Your task to perform on an android device: change notifications settings Image 0: 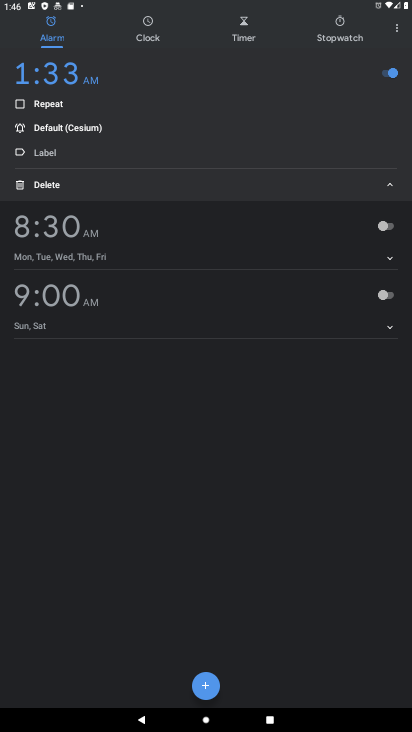
Step 0: press home button
Your task to perform on an android device: change notifications settings Image 1: 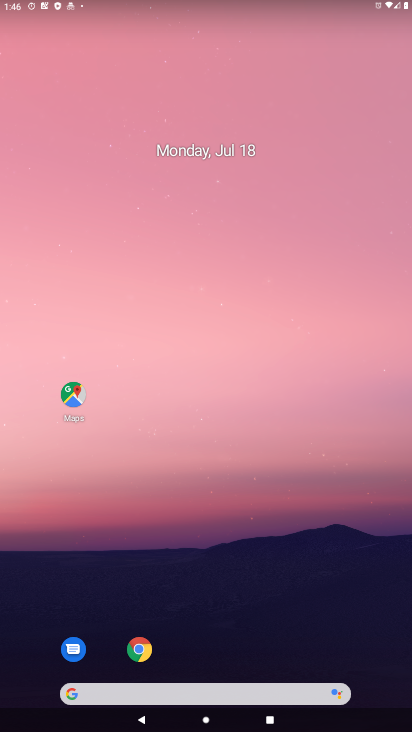
Step 1: drag from (192, 654) to (189, 50)
Your task to perform on an android device: change notifications settings Image 2: 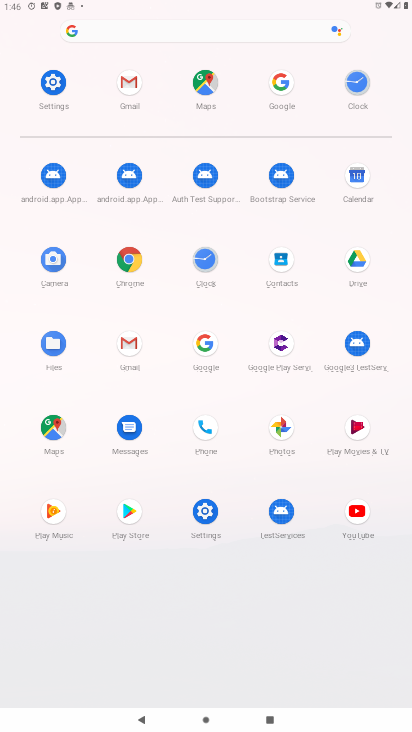
Step 2: click (57, 84)
Your task to perform on an android device: change notifications settings Image 3: 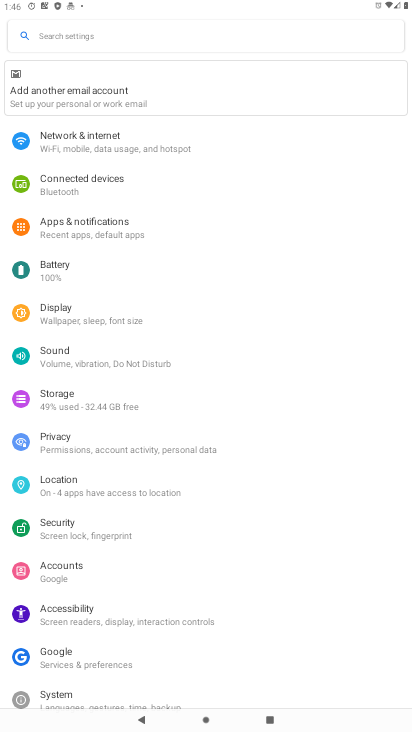
Step 3: click (80, 229)
Your task to perform on an android device: change notifications settings Image 4: 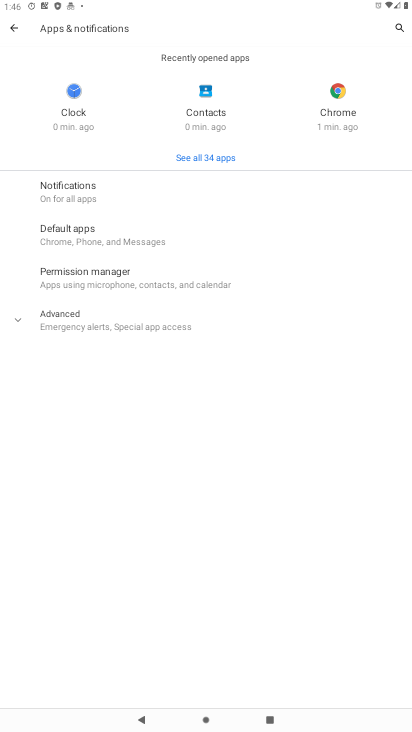
Step 4: click (63, 183)
Your task to perform on an android device: change notifications settings Image 5: 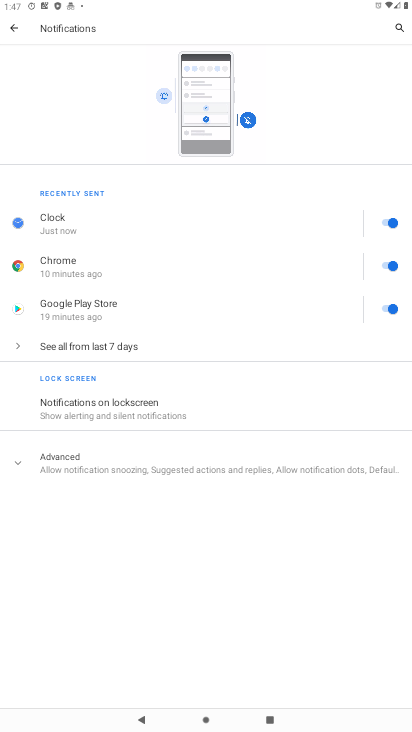
Step 5: click (75, 346)
Your task to perform on an android device: change notifications settings Image 6: 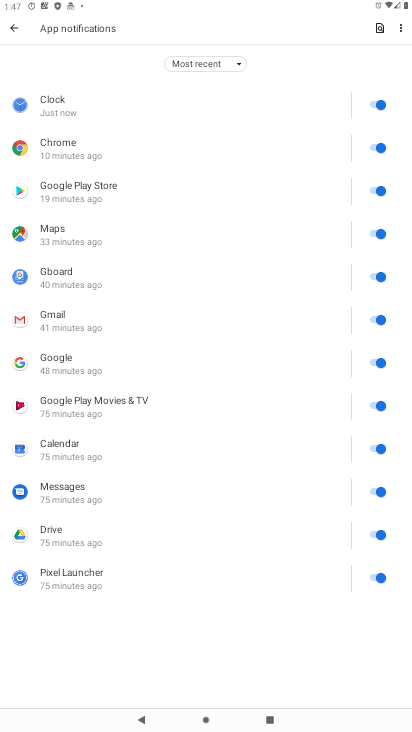
Step 6: click (224, 60)
Your task to perform on an android device: change notifications settings Image 7: 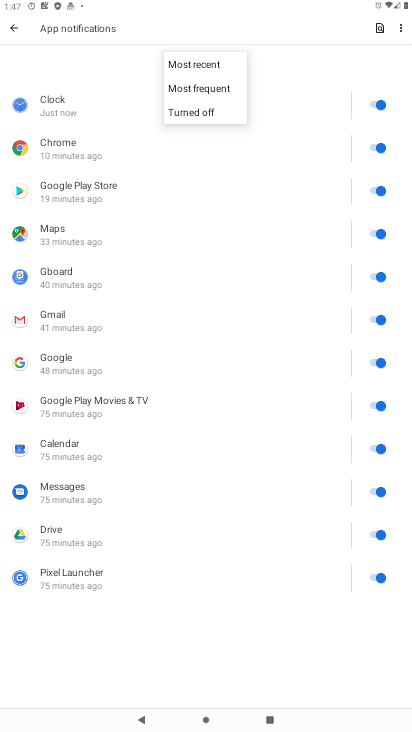
Step 7: click (211, 108)
Your task to perform on an android device: change notifications settings Image 8: 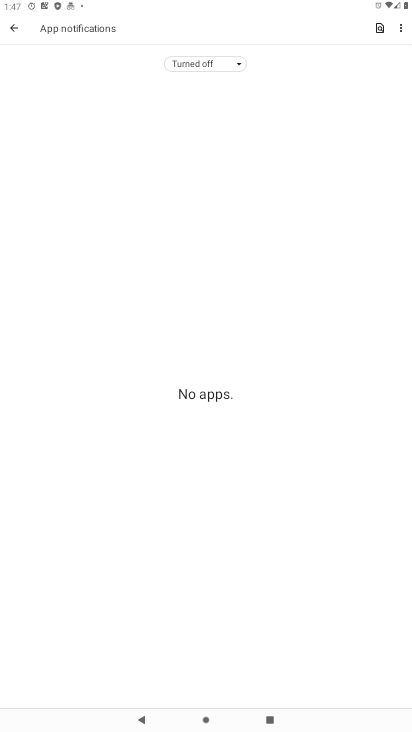
Step 8: task complete